Your task to perform on an android device: Google the capital of Peru Image 0: 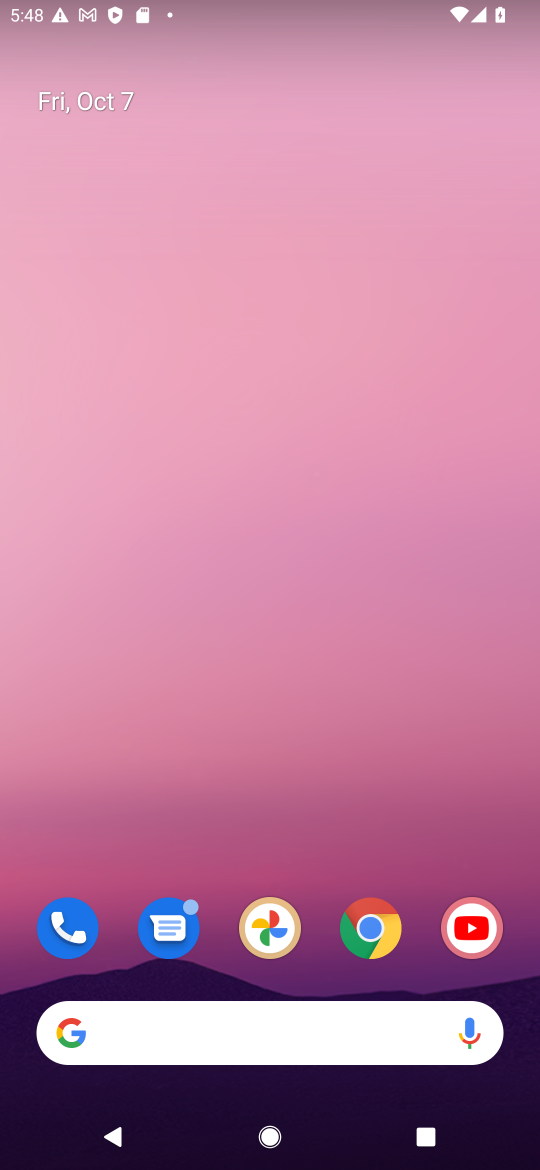
Step 0: drag from (340, 1018) to (345, 285)
Your task to perform on an android device: Google the capital of Peru Image 1: 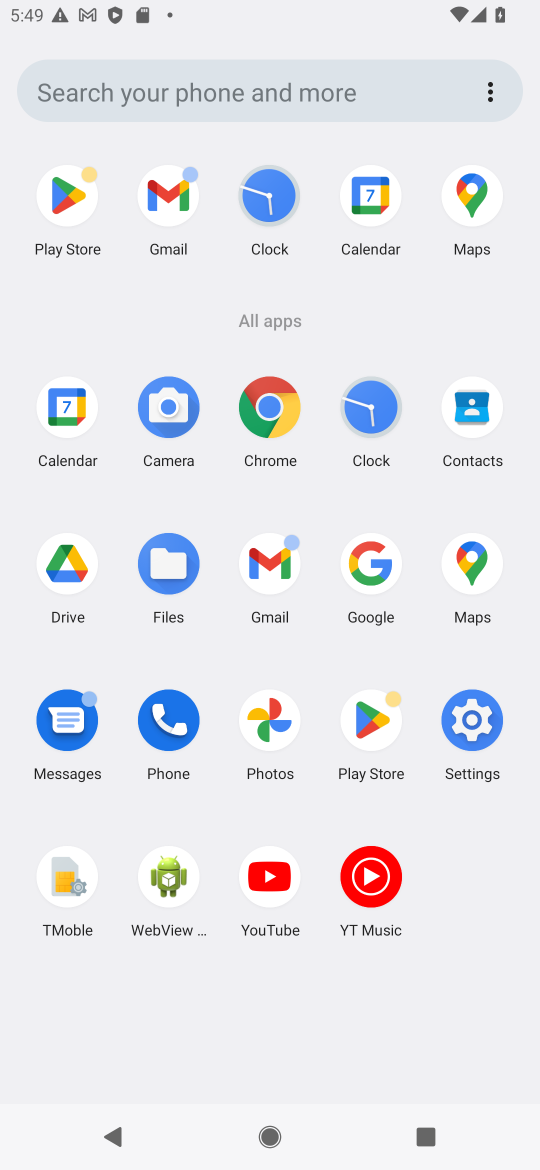
Step 1: click (377, 608)
Your task to perform on an android device: Google the capital of Peru Image 2: 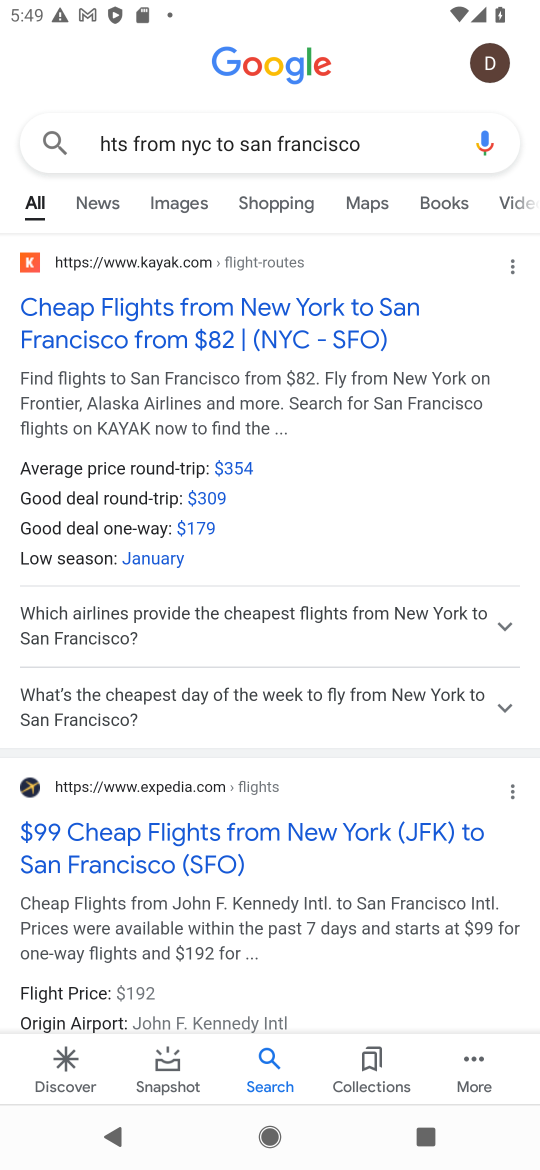
Step 2: click (409, 153)
Your task to perform on an android device: Google the capital of Peru Image 3: 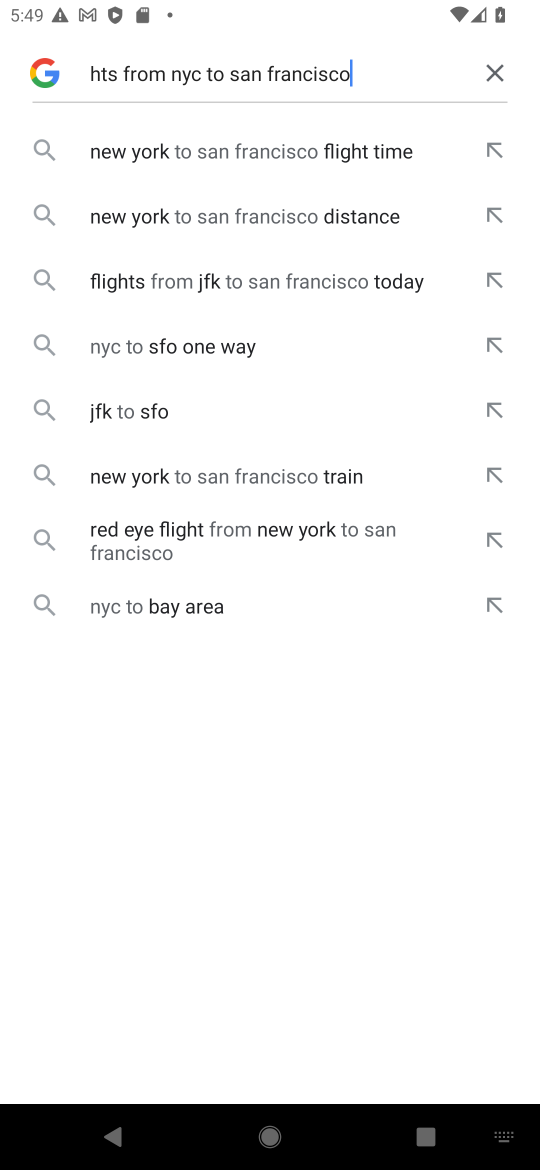
Step 3: click (489, 77)
Your task to perform on an android device: Google the capital of Peru Image 4: 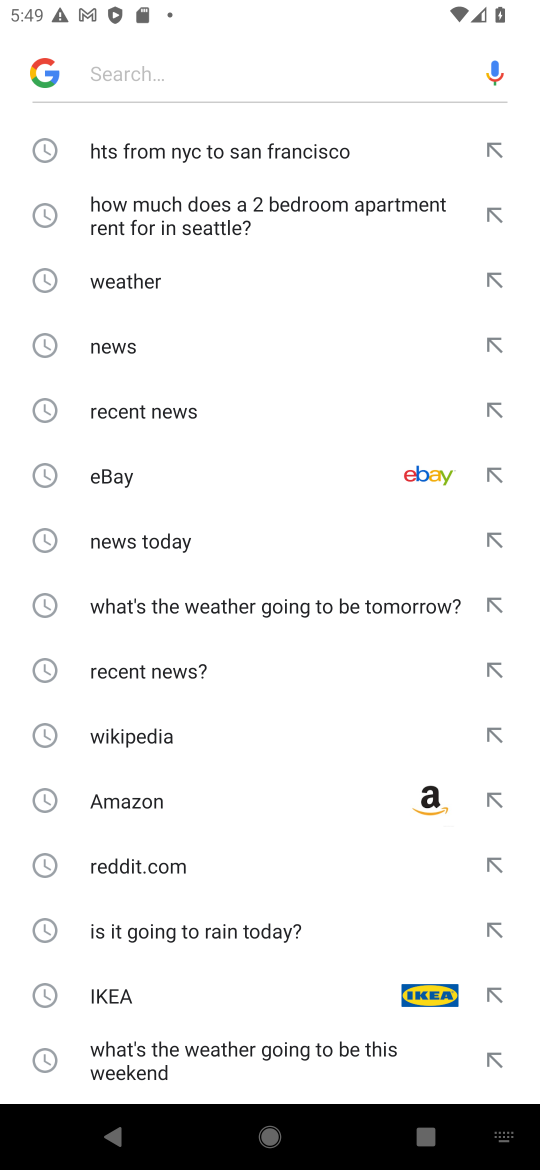
Step 4: type "capital of peru"
Your task to perform on an android device: Google the capital of Peru Image 5: 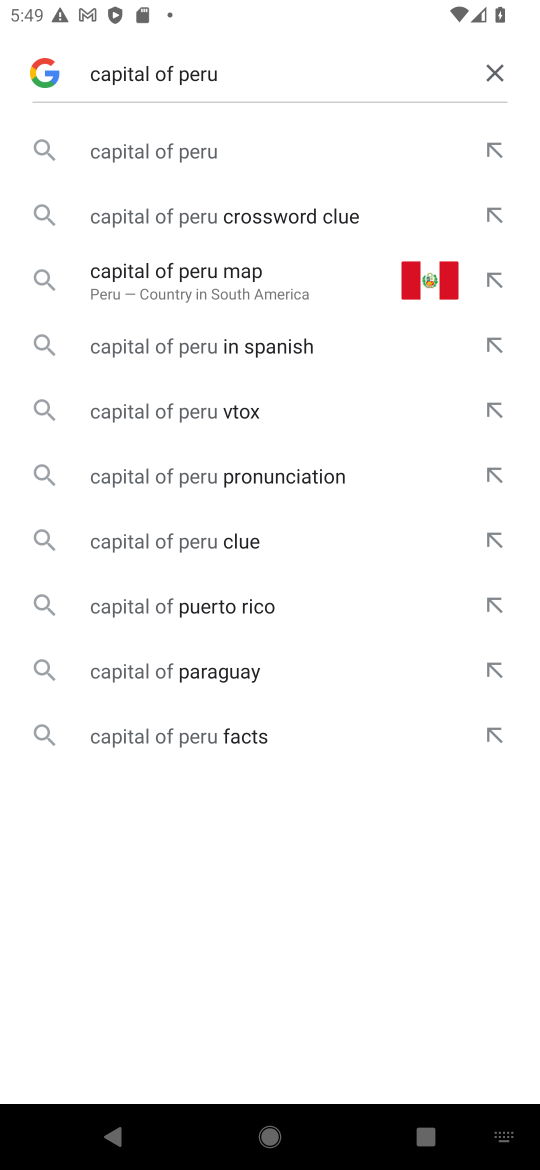
Step 5: click (285, 149)
Your task to perform on an android device: Google the capital of Peru Image 6: 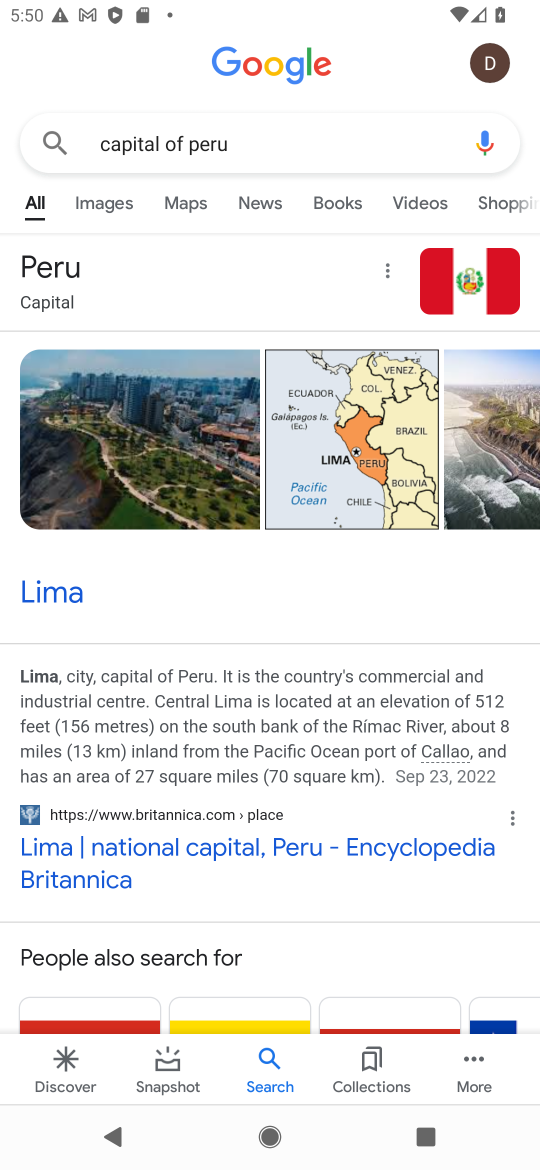
Step 6: task complete